Your task to perform on an android device: What is the news today? Image 0: 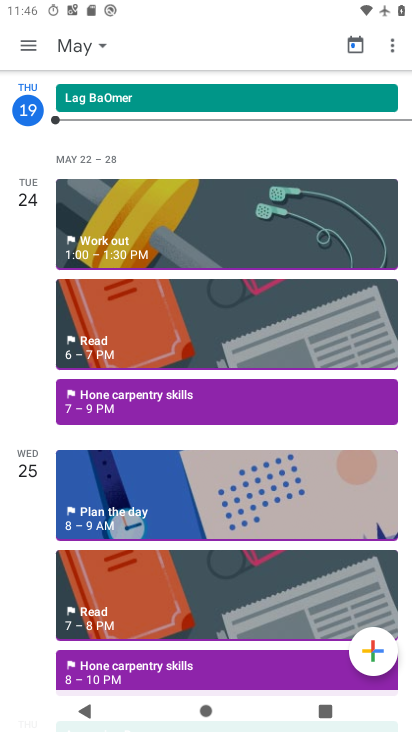
Step 0: press home button
Your task to perform on an android device: What is the news today? Image 1: 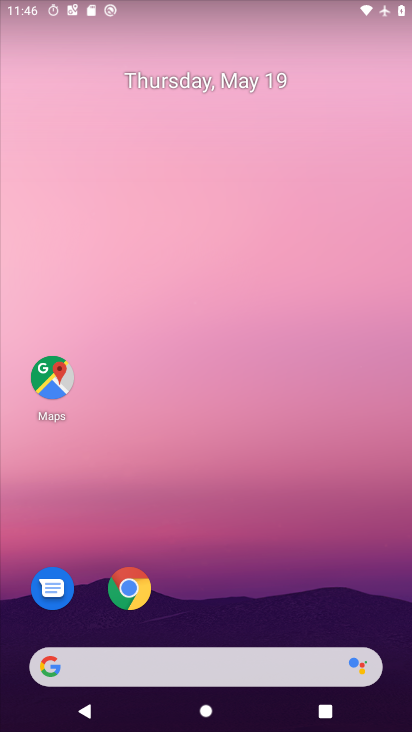
Step 1: click (55, 669)
Your task to perform on an android device: What is the news today? Image 2: 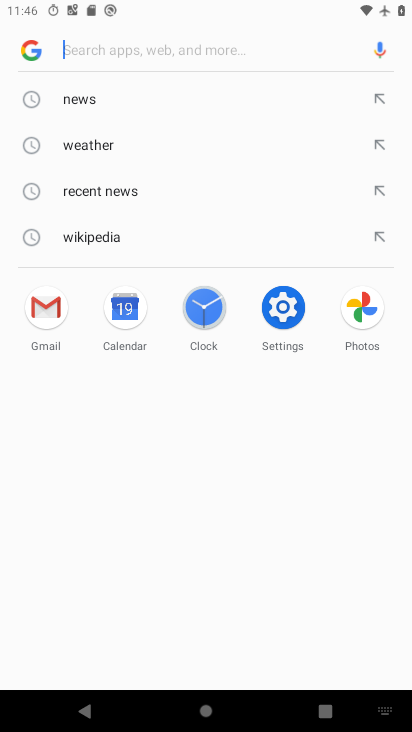
Step 2: click (84, 100)
Your task to perform on an android device: What is the news today? Image 3: 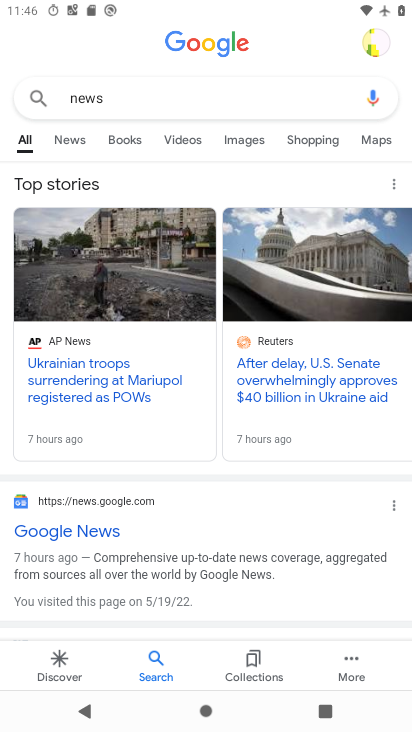
Step 3: click (72, 142)
Your task to perform on an android device: What is the news today? Image 4: 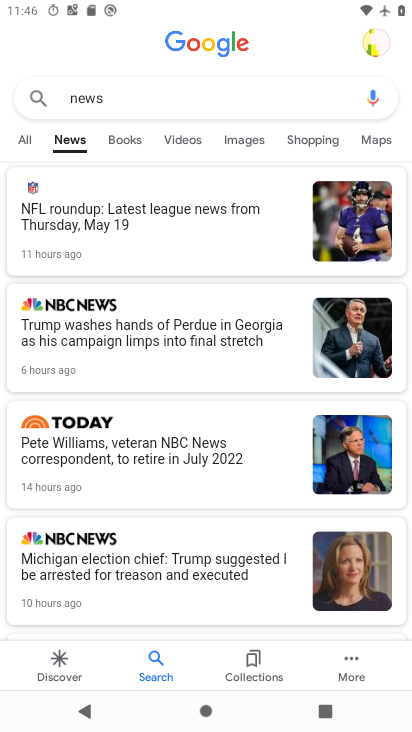
Step 4: task complete